Your task to perform on an android device: toggle wifi Image 0: 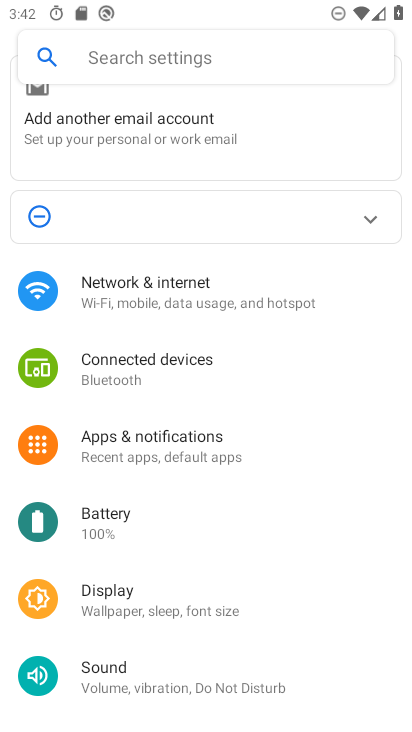
Step 0: click (172, 313)
Your task to perform on an android device: toggle wifi Image 1: 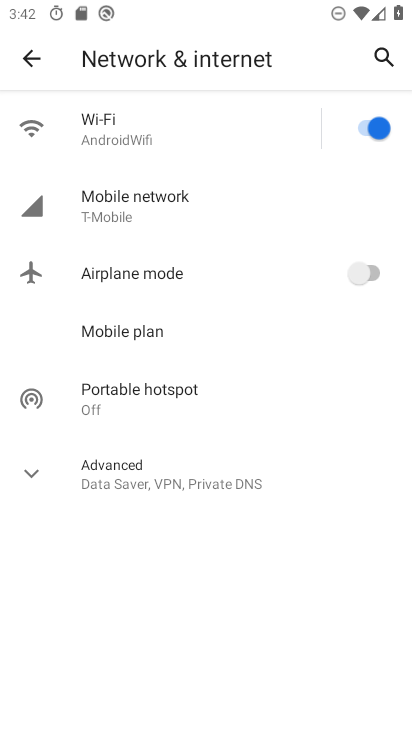
Step 1: click (366, 139)
Your task to perform on an android device: toggle wifi Image 2: 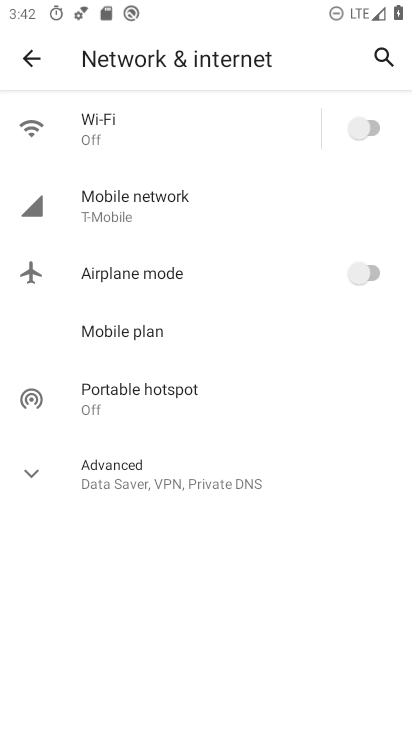
Step 2: task complete